Your task to perform on an android device: Open CNN.com Image 0: 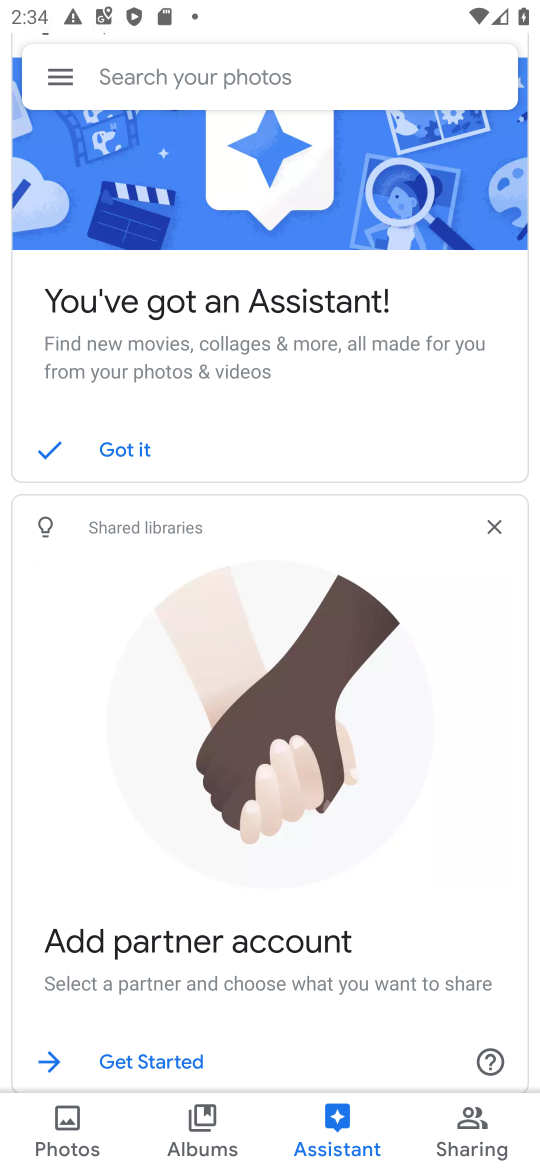
Step 0: press home button
Your task to perform on an android device: Open CNN.com Image 1: 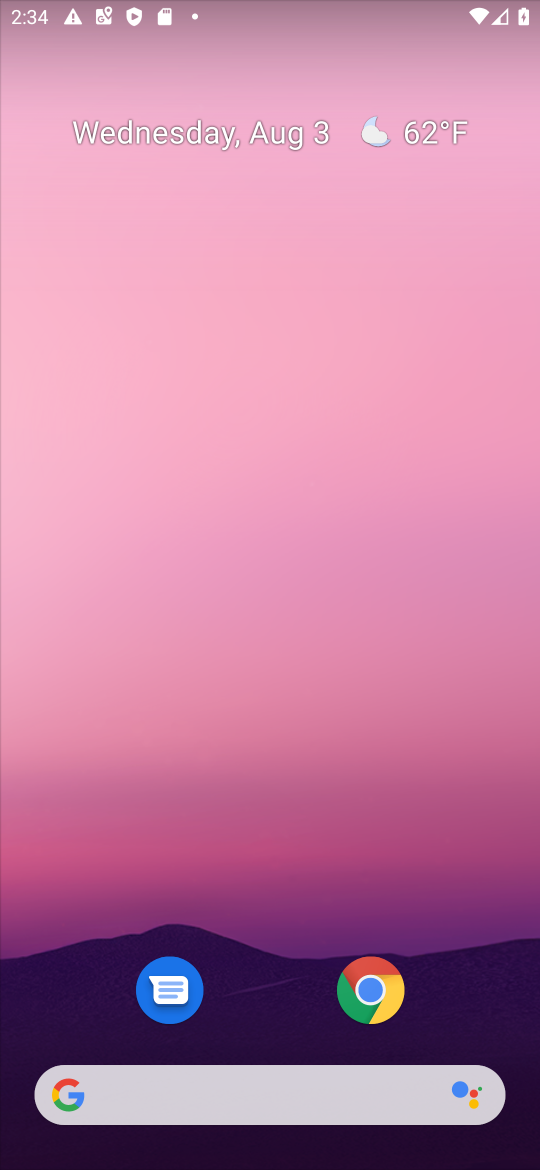
Step 1: drag from (229, 971) to (221, 453)
Your task to perform on an android device: Open CNN.com Image 2: 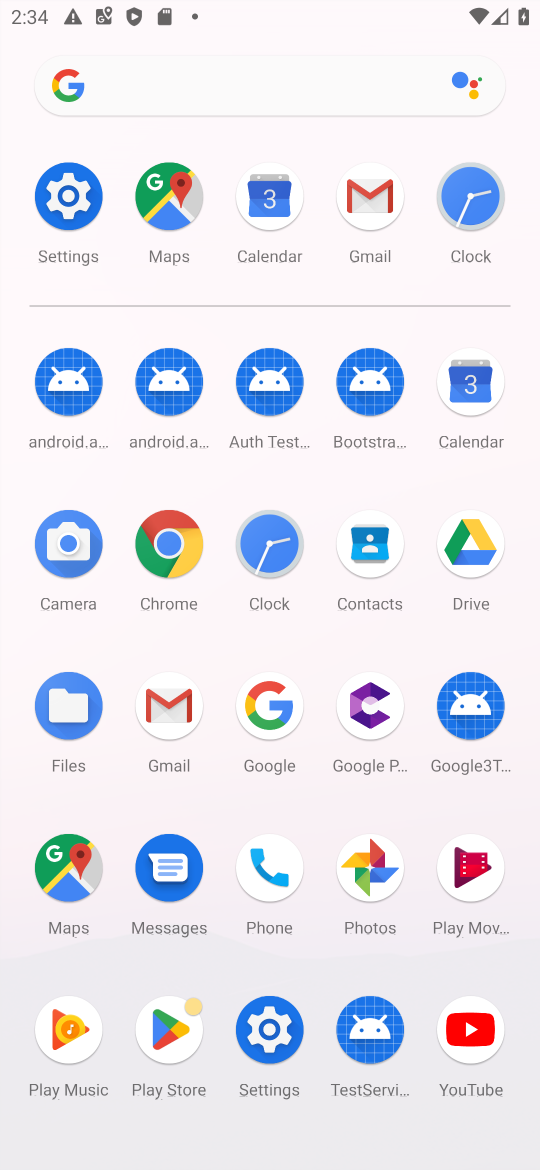
Step 2: click (272, 710)
Your task to perform on an android device: Open CNN.com Image 3: 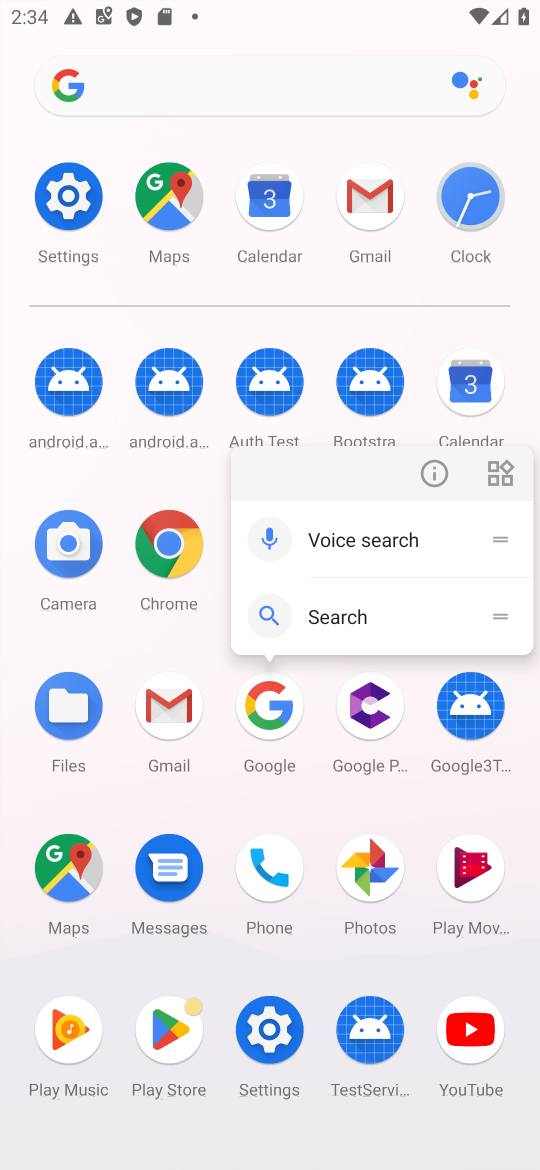
Step 3: click (270, 709)
Your task to perform on an android device: Open CNN.com Image 4: 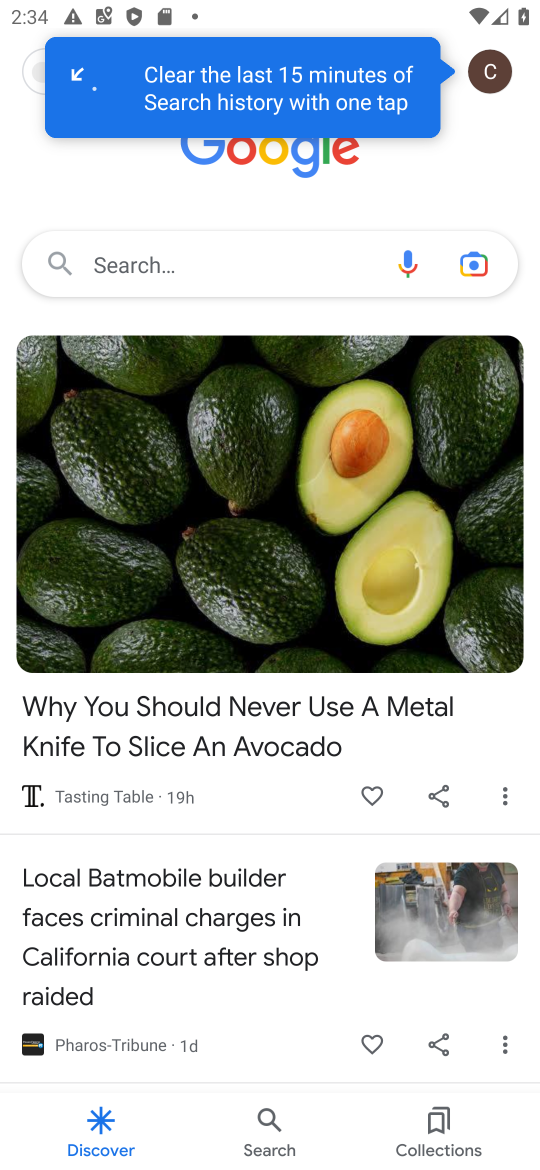
Step 4: click (191, 259)
Your task to perform on an android device: Open CNN.com Image 5: 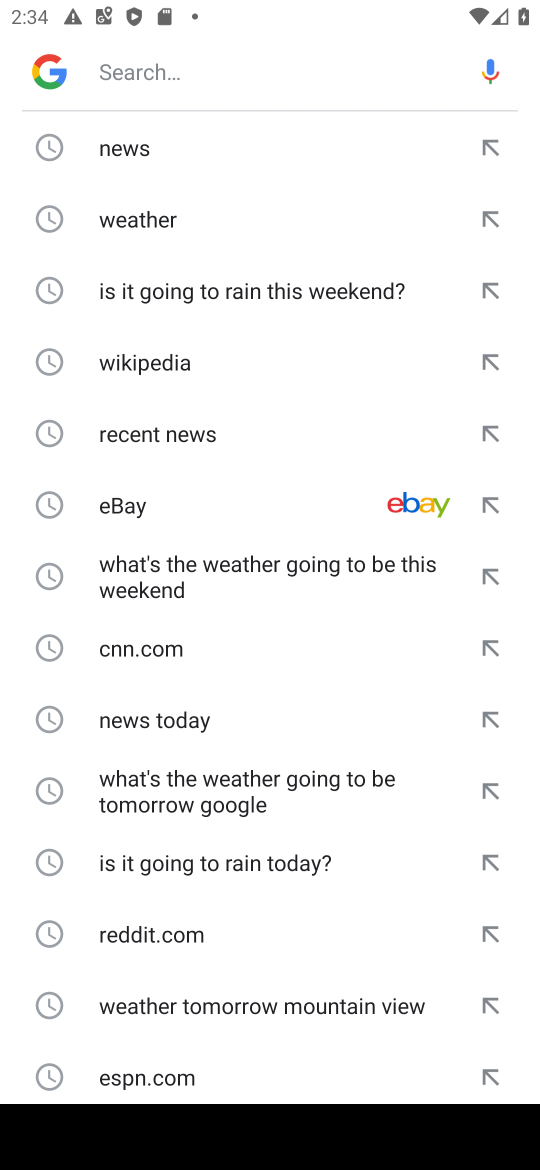
Step 5: drag from (206, 976) to (184, 515)
Your task to perform on an android device: Open CNN.com Image 6: 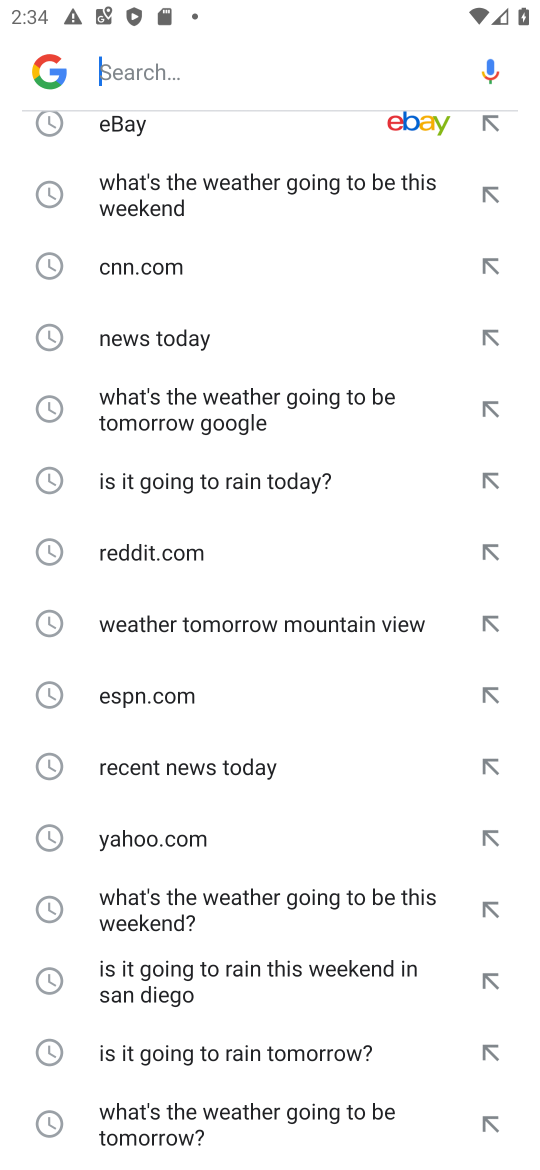
Step 6: drag from (162, 397) to (215, 791)
Your task to perform on an android device: Open CNN.com Image 7: 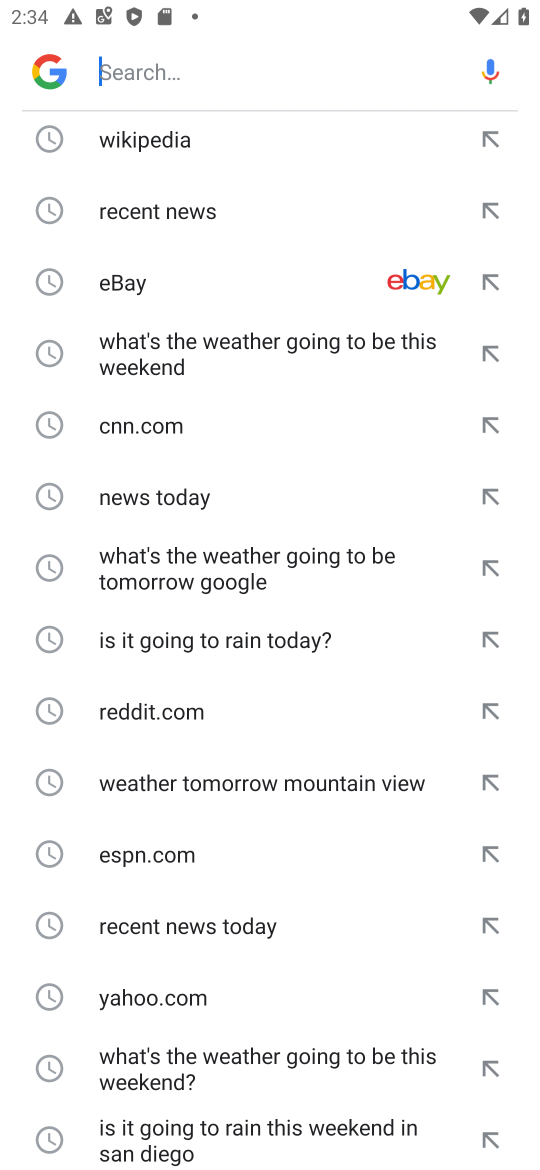
Step 7: click (134, 442)
Your task to perform on an android device: Open CNN.com Image 8: 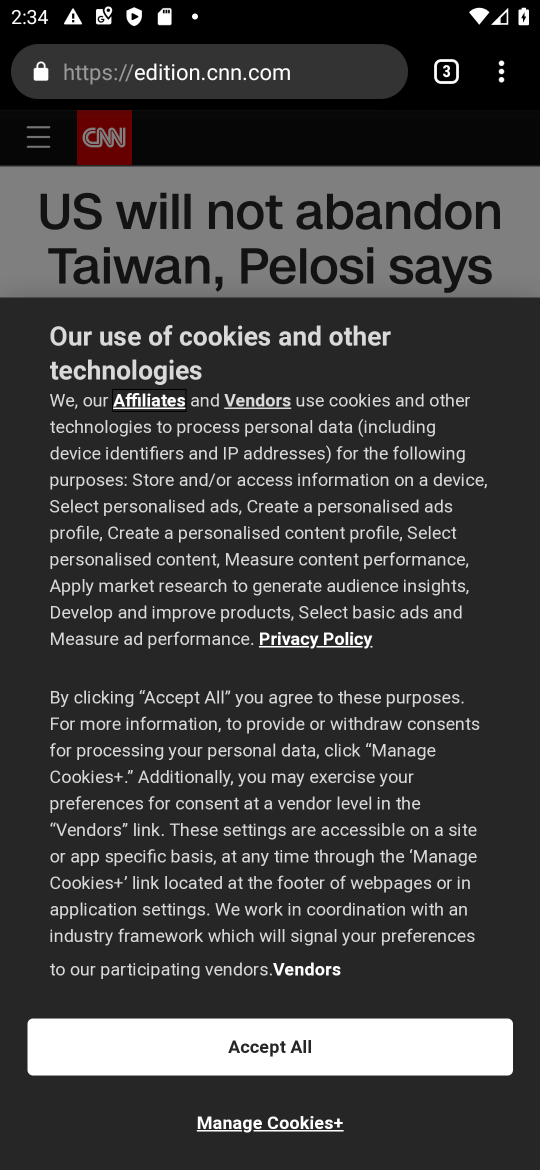
Step 8: task complete